Your task to perform on an android device: find which apps use the phone's location Image 0: 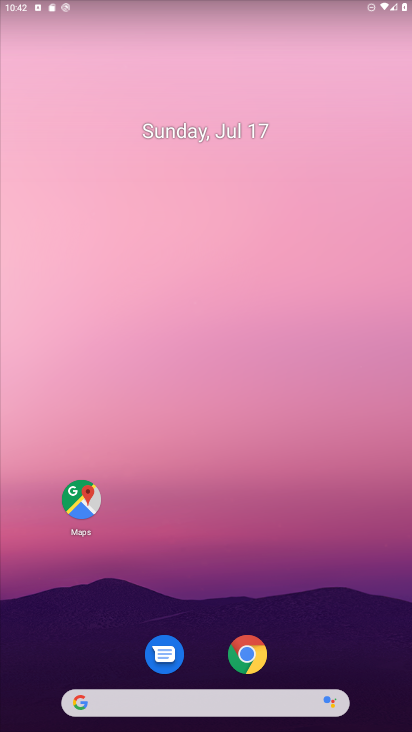
Step 0: drag from (204, 623) to (206, 77)
Your task to perform on an android device: find which apps use the phone's location Image 1: 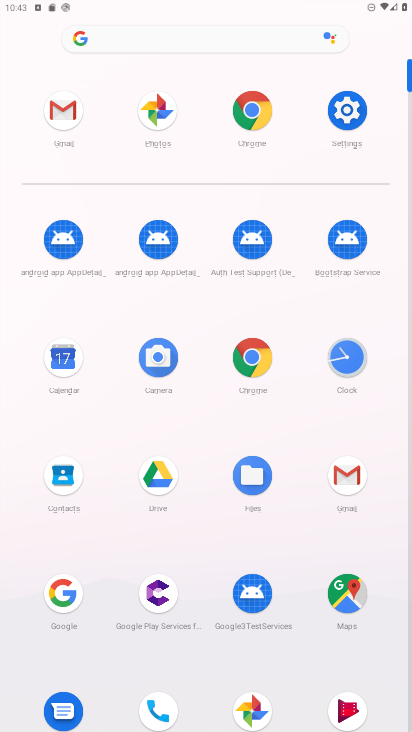
Step 1: click (340, 116)
Your task to perform on an android device: find which apps use the phone's location Image 2: 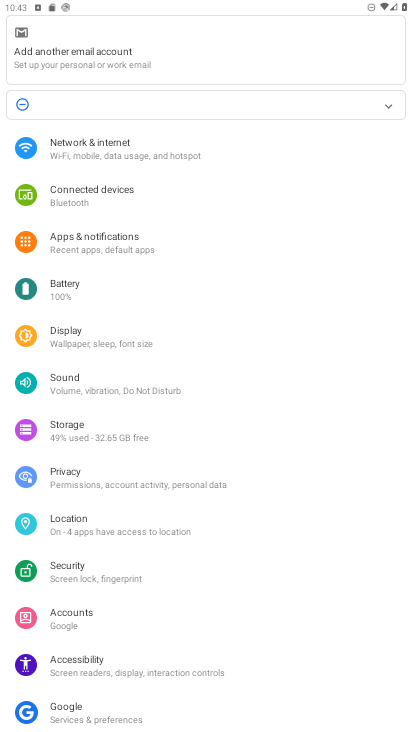
Step 2: click (75, 523)
Your task to perform on an android device: find which apps use the phone's location Image 3: 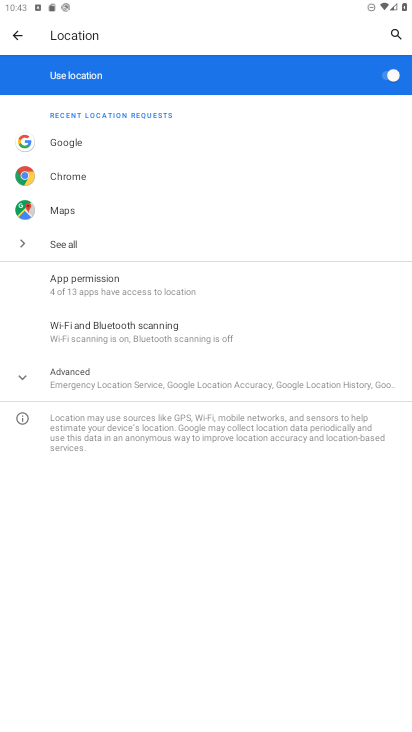
Step 3: click (84, 285)
Your task to perform on an android device: find which apps use the phone's location Image 4: 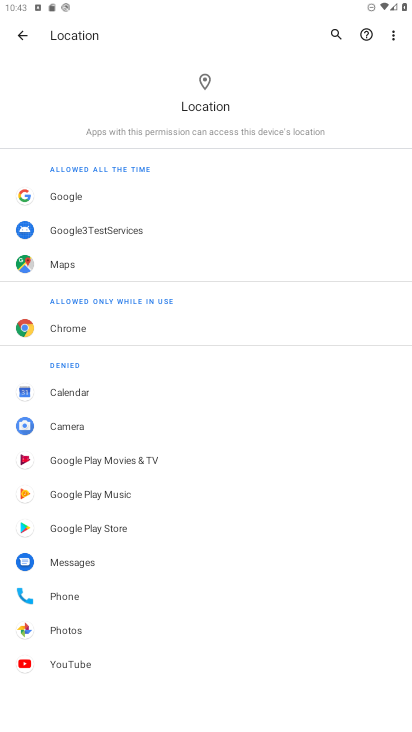
Step 4: task complete